Your task to perform on an android device: turn off airplane mode Image 0: 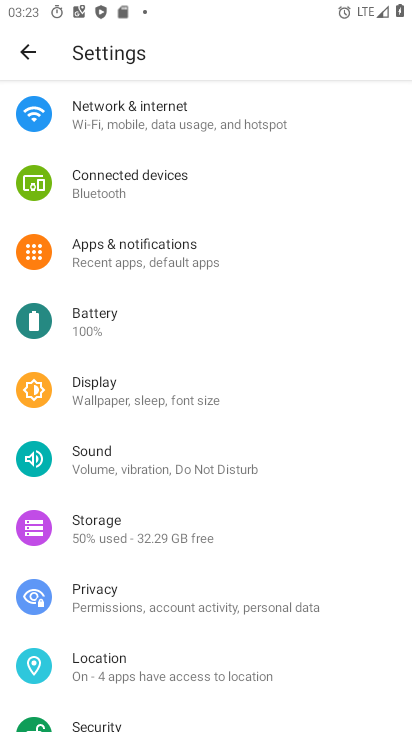
Step 0: click (163, 127)
Your task to perform on an android device: turn off airplane mode Image 1: 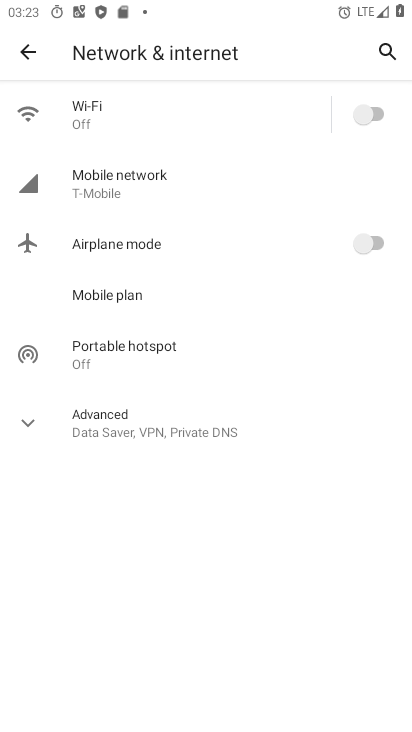
Step 1: task complete